Your task to perform on an android device: Turn off the flashlight Image 0: 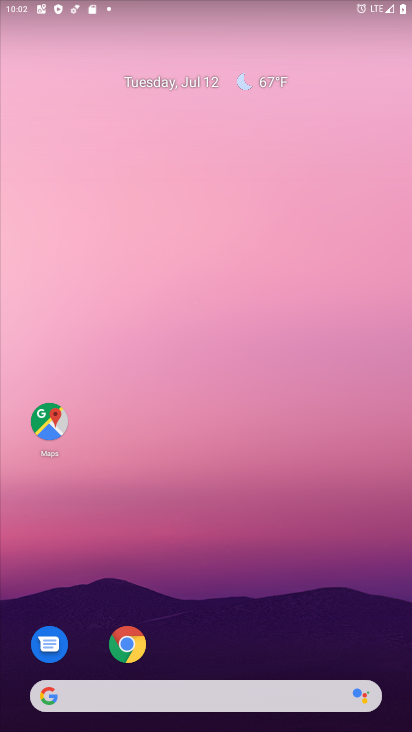
Step 0: drag from (186, 663) to (237, 157)
Your task to perform on an android device: Turn off the flashlight Image 1: 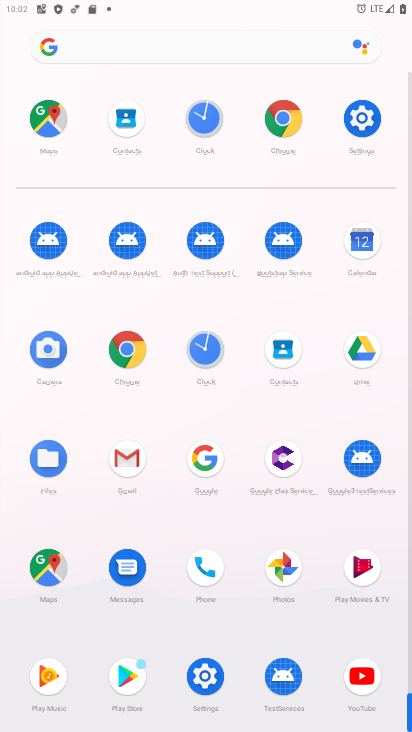
Step 1: click (348, 120)
Your task to perform on an android device: Turn off the flashlight Image 2: 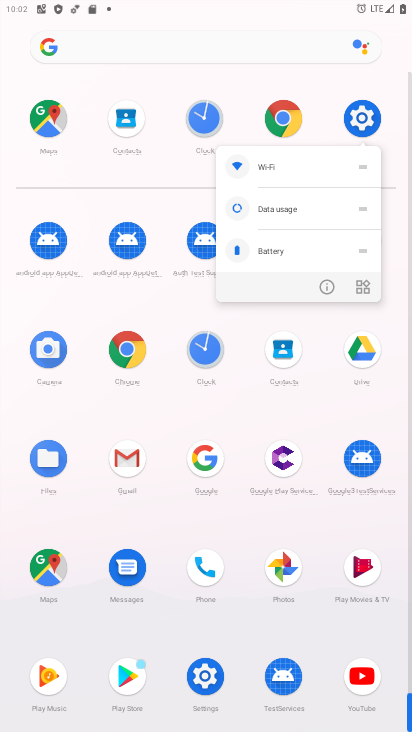
Step 2: click (323, 282)
Your task to perform on an android device: Turn off the flashlight Image 3: 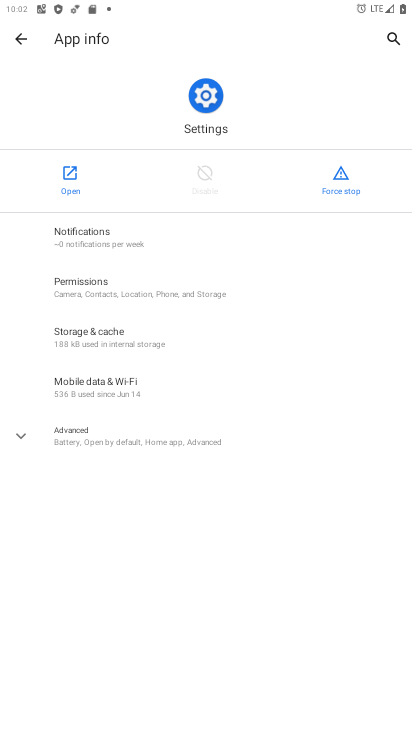
Step 3: click (74, 168)
Your task to perform on an android device: Turn off the flashlight Image 4: 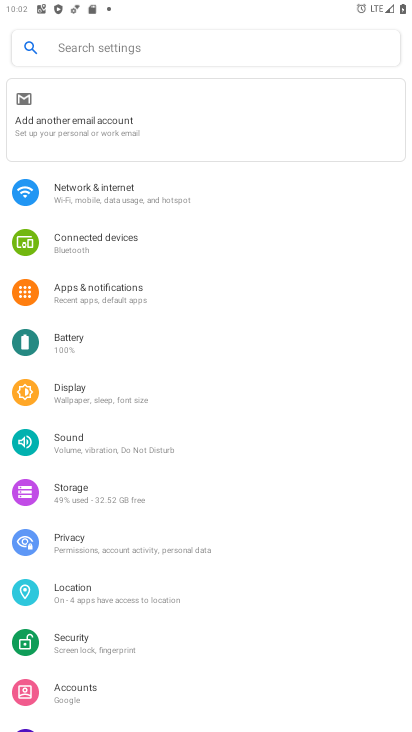
Step 4: click (94, 43)
Your task to perform on an android device: Turn off the flashlight Image 5: 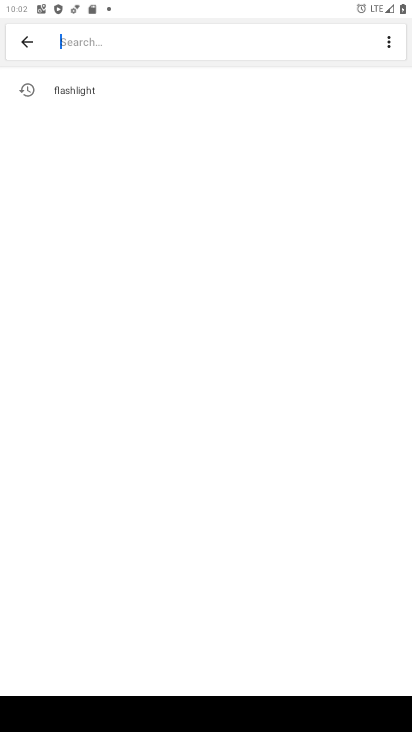
Step 5: click (126, 93)
Your task to perform on an android device: Turn off the flashlight Image 6: 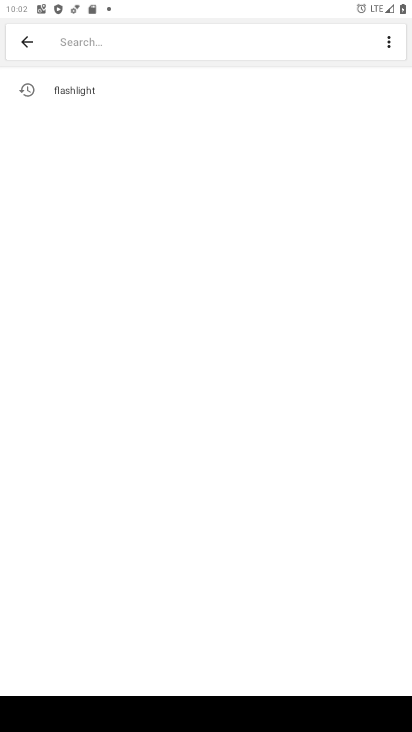
Step 6: click (126, 93)
Your task to perform on an android device: Turn off the flashlight Image 7: 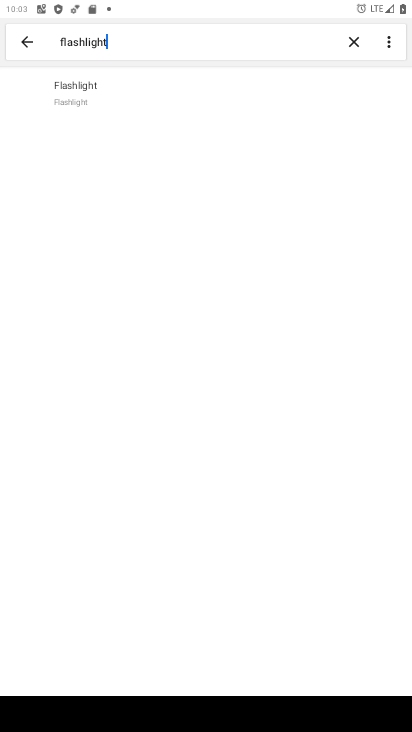
Step 7: task complete